Your task to perform on an android device: Search for a new perfume Image 0: 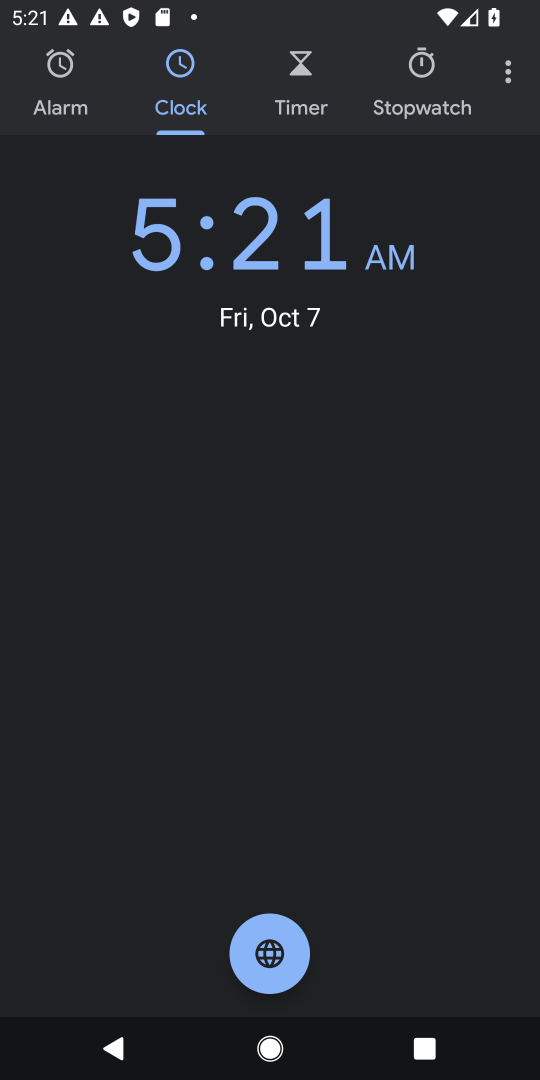
Step 0: press home button
Your task to perform on an android device: Search for a new perfume Image 1: 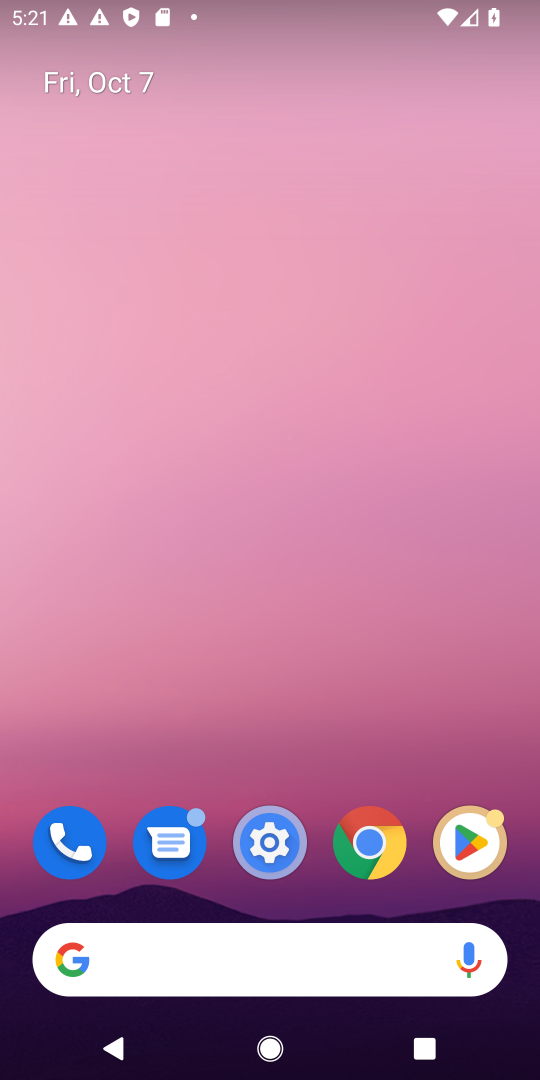
Step 1: click (367, 835)
Your task to perform on an android device: Search for a new perfume Image 2: 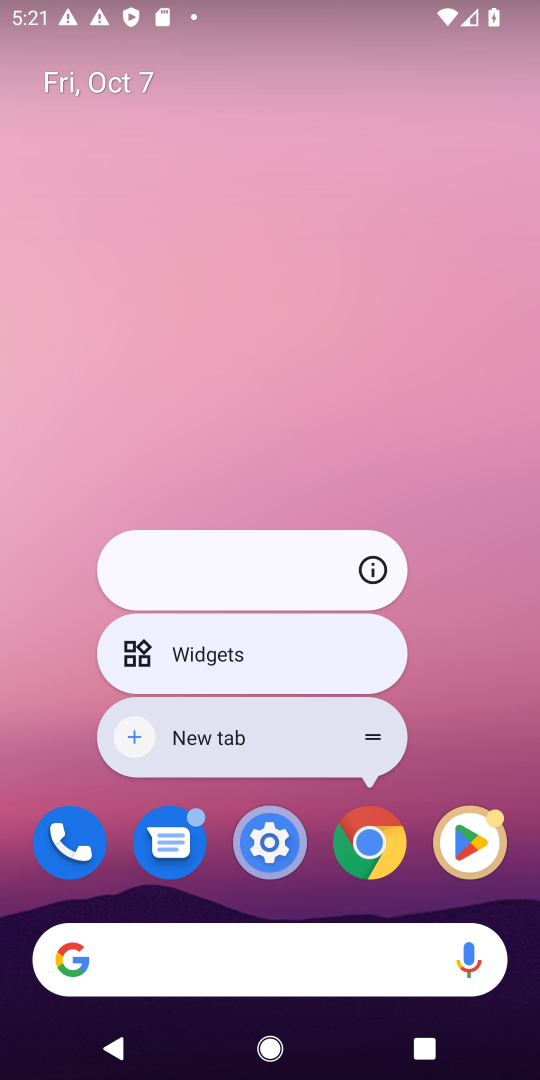
Step 2: click (354, 832)
Your task to perform on an android device: Search for a new perfume Image 3: 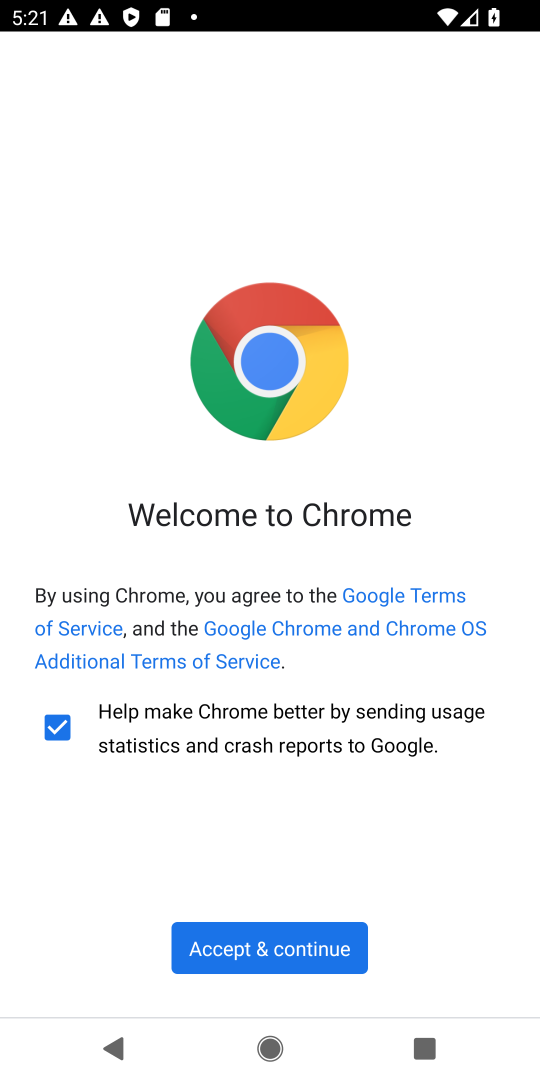
Step 3: click (219, 950)
Your task to perform on an android device: Search for a new perfume Image 4: 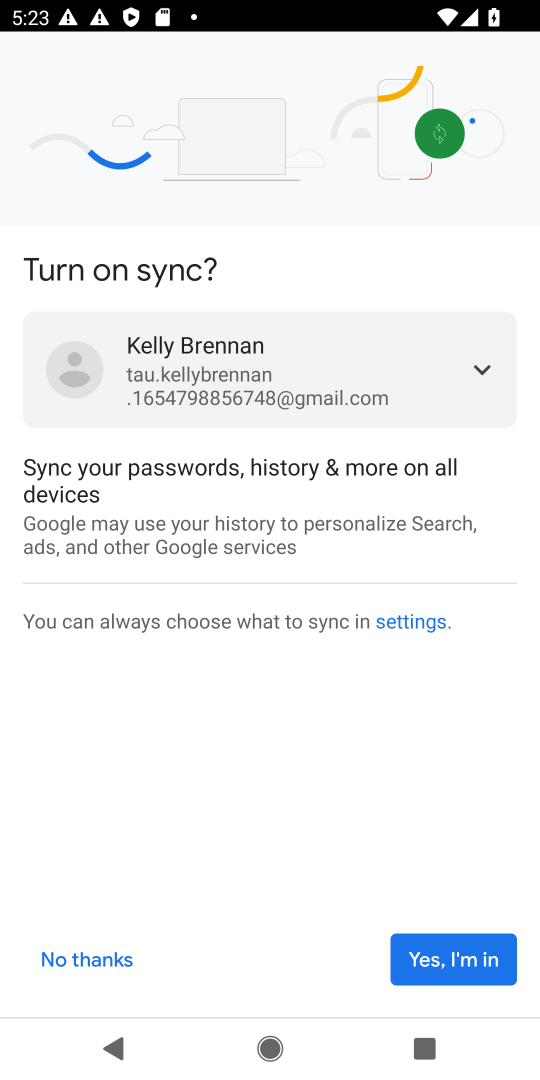
Step 4: press home button
Your task to perform on an android device: Search for a new perfume Image 5: 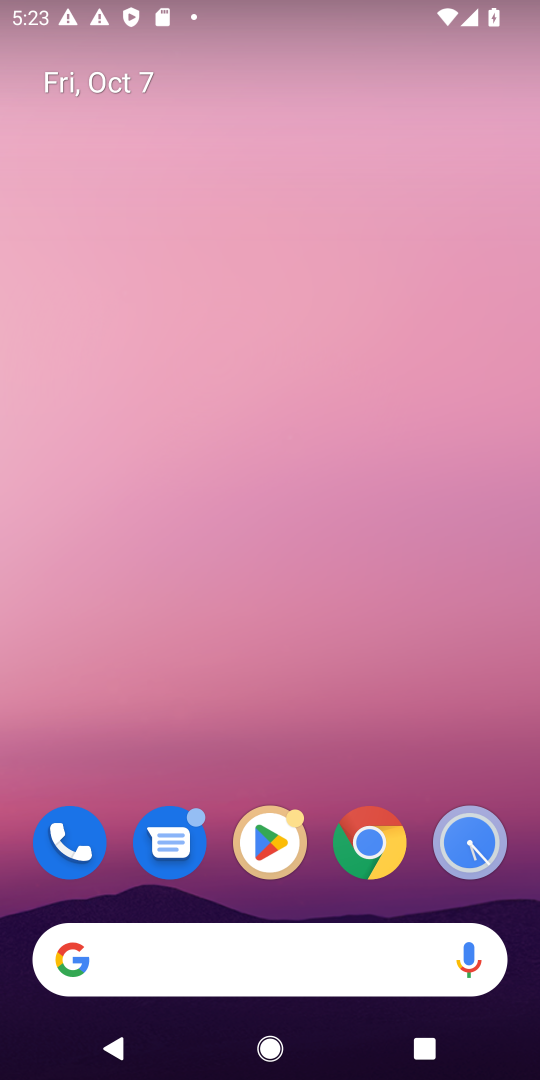
Step 5: click (224, 963)
Your task to perform on an android device: Search for a new perfume Image 6: 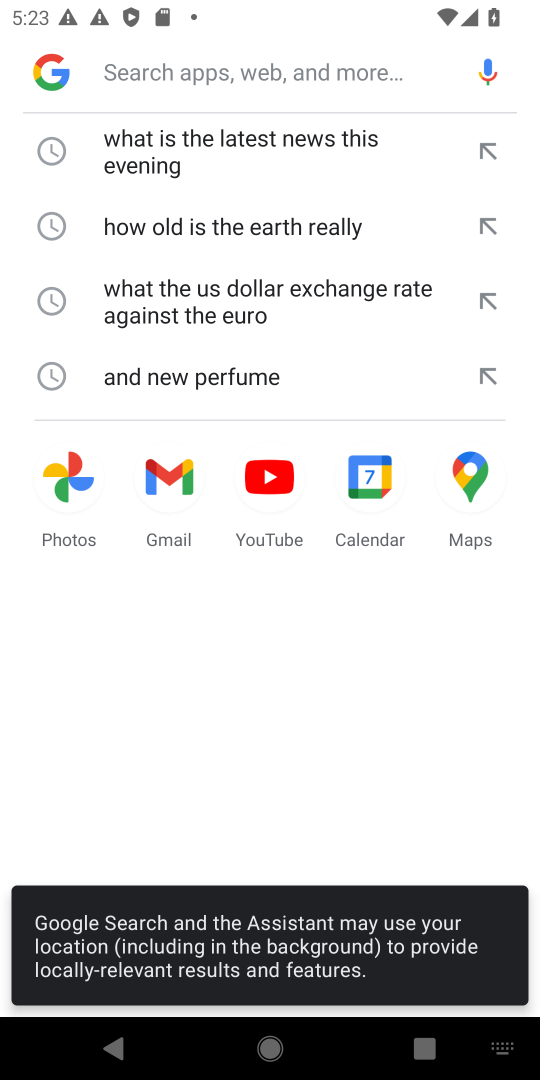
Step 6: click (176, 73)
Your task to perform on an android device: Search for a new perfume Image 7: 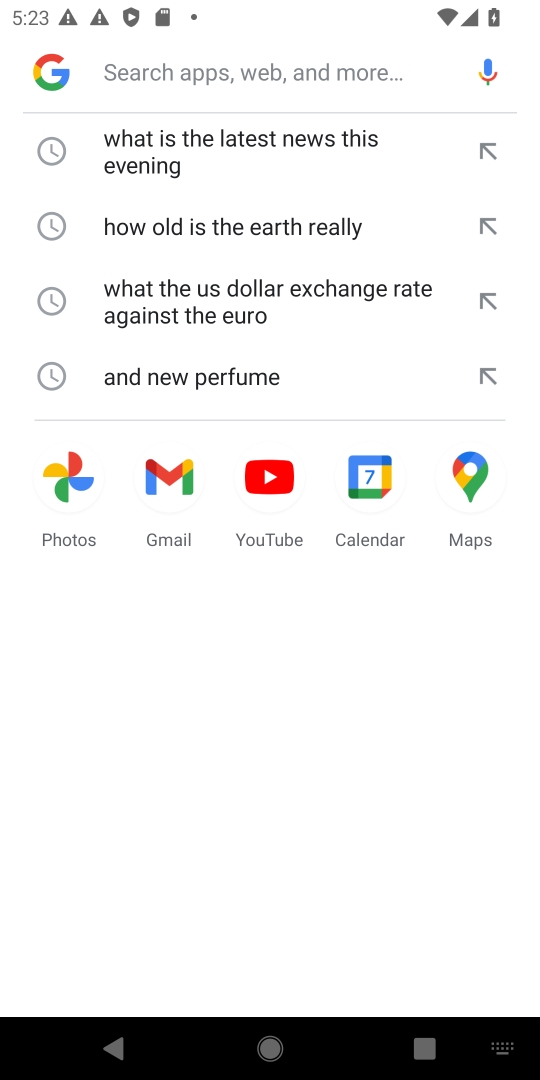
Step 7: type "new perfume"
Your task to perform on an android device: Search for a new perfume Image 8: 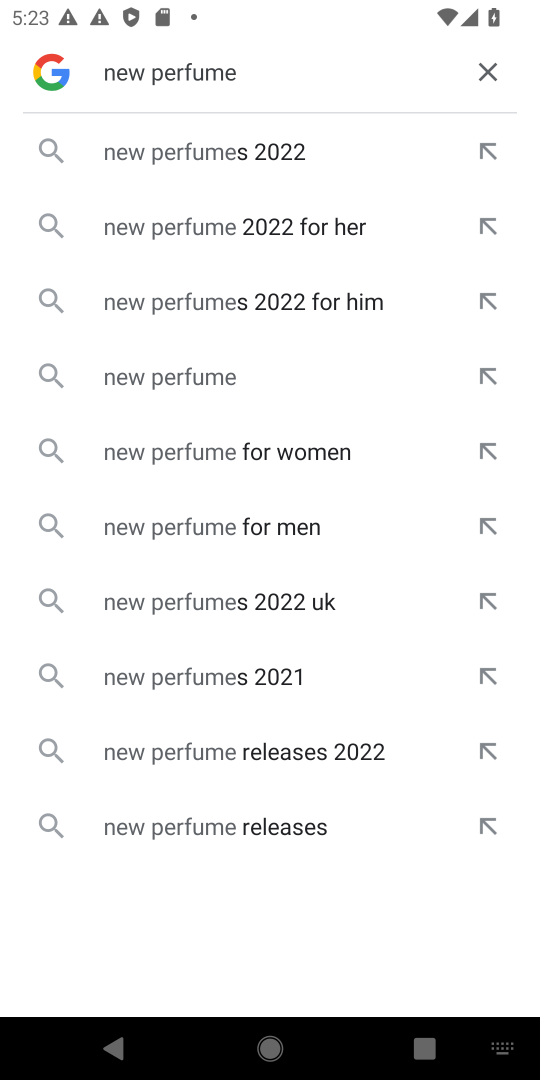
Step 8: click (211, 382)
Your task to perform on an android device: Search for a new perfume Image 9: 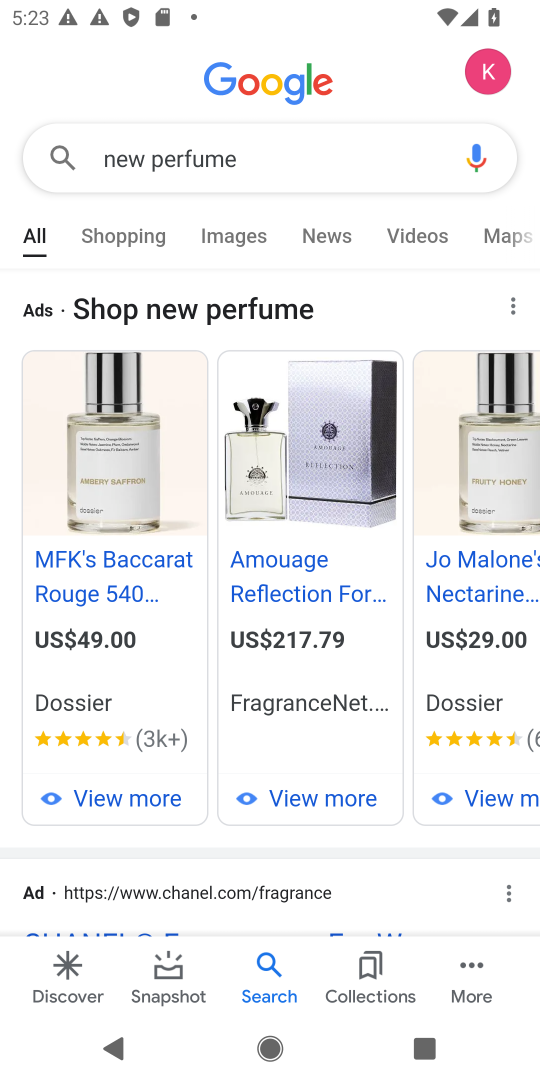
Step 9: task complete